Your task to perform on an android device: Set the phone to "Do not disturb". Image 0: 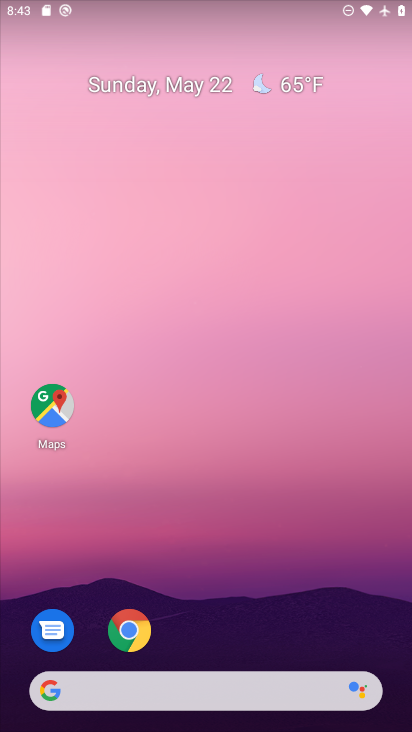
Step 0: drag from (155, 654) to (268, 111)
Your task to perform on an android device: Set the phone to "Do not disturb". Image 1: 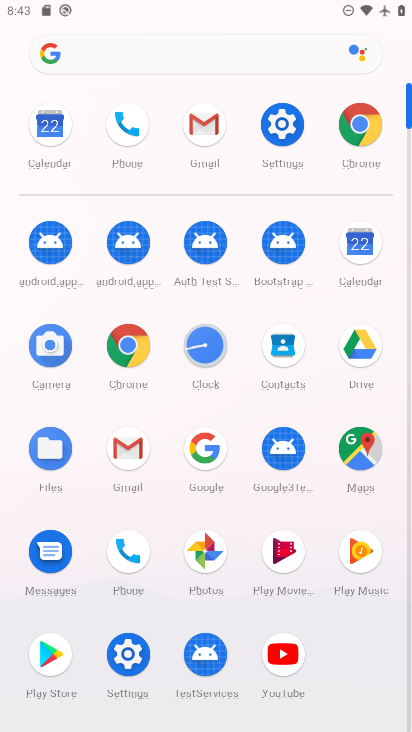
Step 1: click (280, 120)
Your task to perform on an android device: Set the phone to "Do not disturb". Image 2: 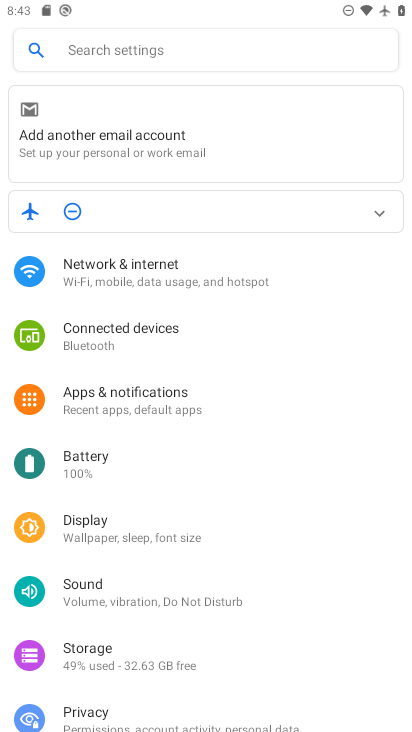
Step 2: click (143, 592)
Your task to perform on an android device: Set the phone to "Do not disturb". Image 3: 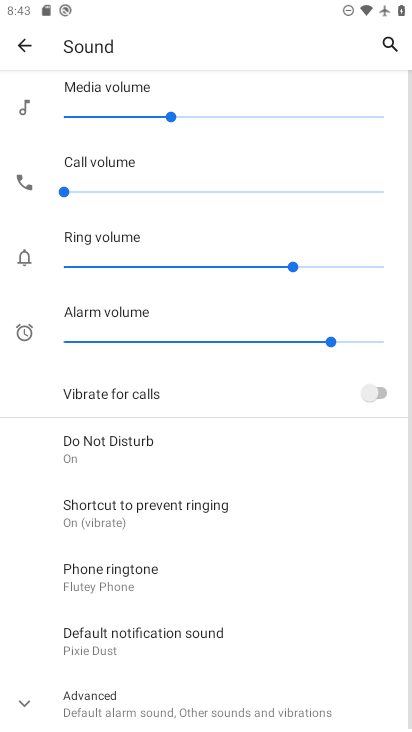
Step 3: click (112, 452)
Your task to perform on an android device: Set the phone to "Do not disturb". Image 4: 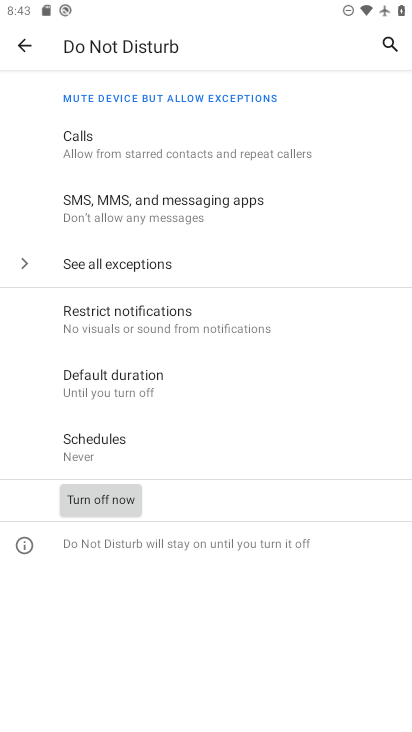
Step 4: task complete